Your task to perform on an android device: open the mobile data screen to see how much data has been used Image 0: 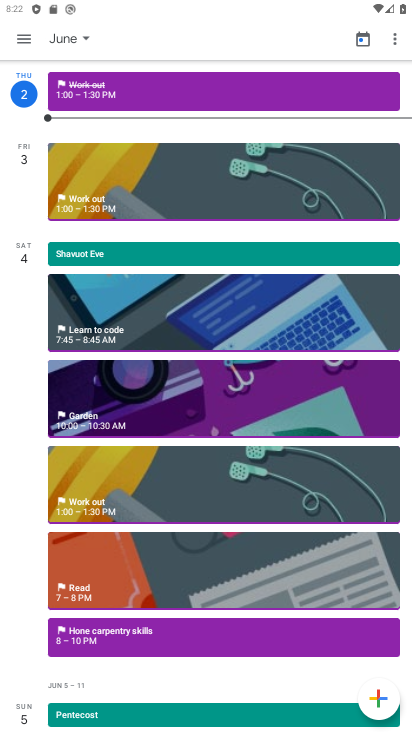
Step 0: press back button
Your task to perform on an android device: open the mobile data screen to see how much data has been used Image 1: 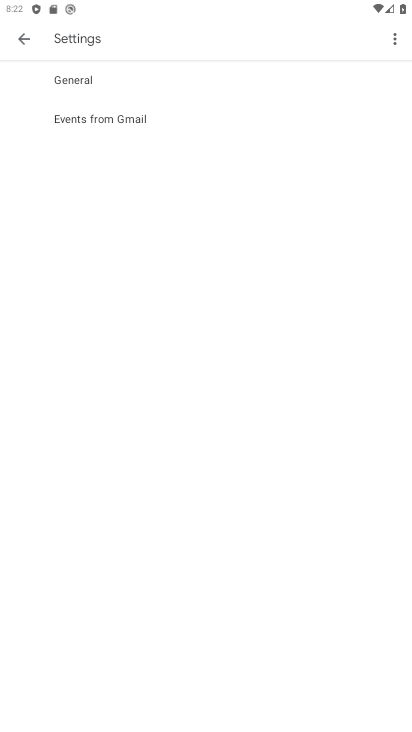
Step 1: press home button
Your task to perform on an android device: open the mobile data screen to see how much data has been used Image 2: 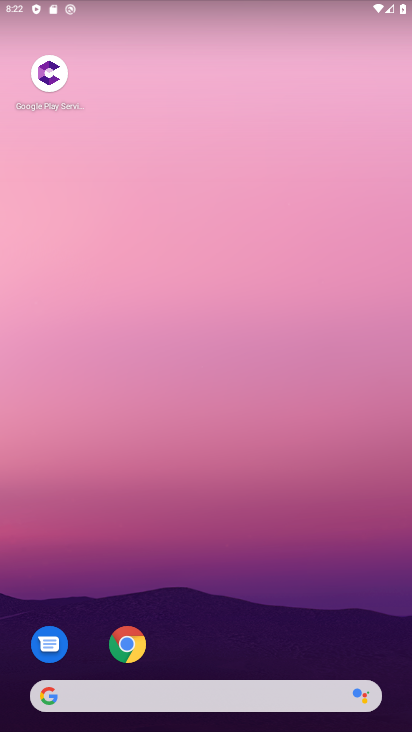
Step 2: drag from (253, 615) to (232, 32)
Your task to perform on an android device: open the mobile data screen to see how much data has been used Image 3: 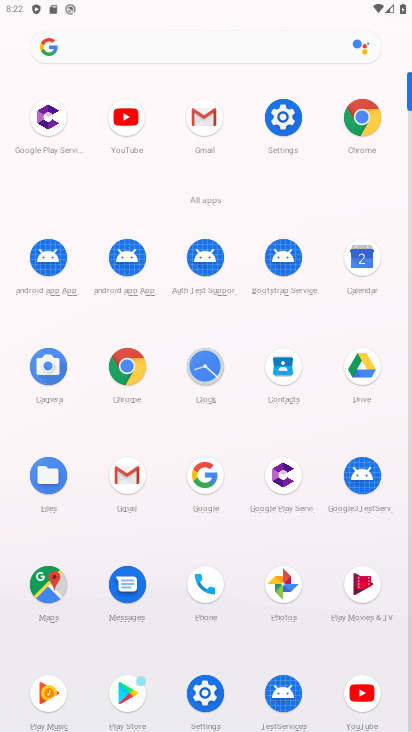
Step 3: click (279, 114)
Your task to perform on an android device: open the mobile data screen to see how much data has been used Image 4: 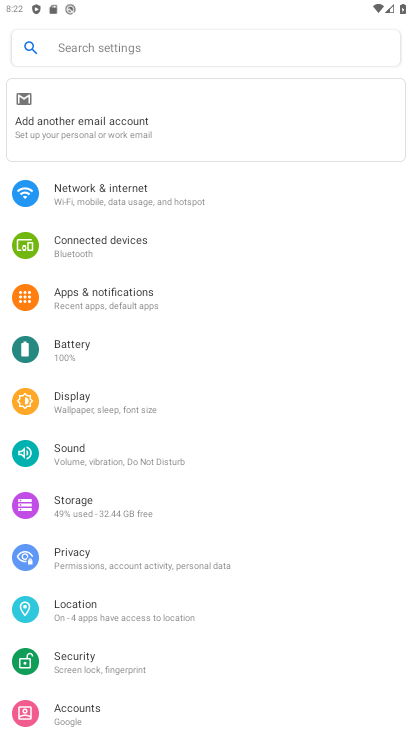
Step 4: click (204, 181)
Your task to perform on an android device: open the mobile data screen to see how much data has been used Image 5: 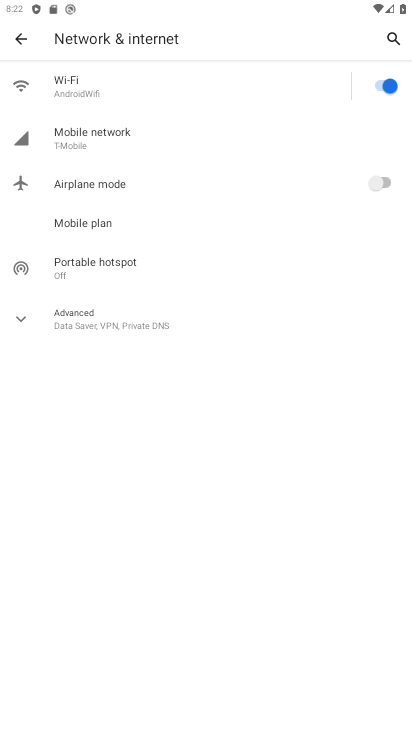
Step 5: click (28, 317)
Your task to perform on an android device: open the mobile data screen to see how much data has been used Image 6: 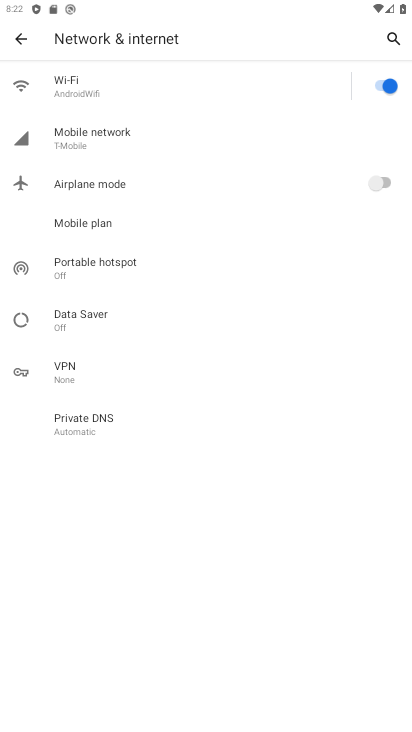
Step 6: click (92, 133)
Your task to perform on an android device: open the mobile data screen to see how much data has been used Image 7: 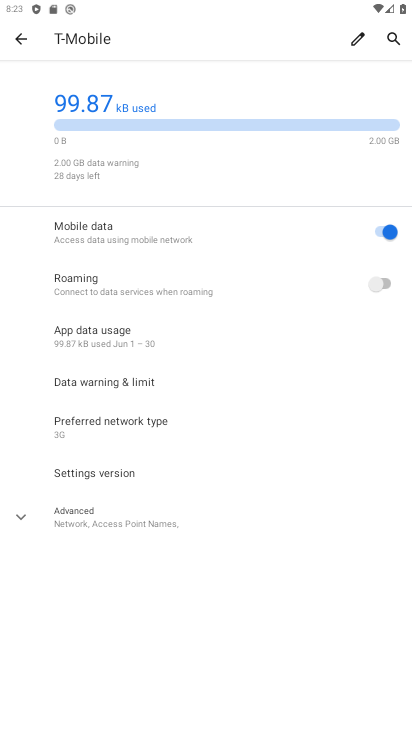
Step 7: task complete